Your task to perform on an android device: open device folders in google photos Image 0: 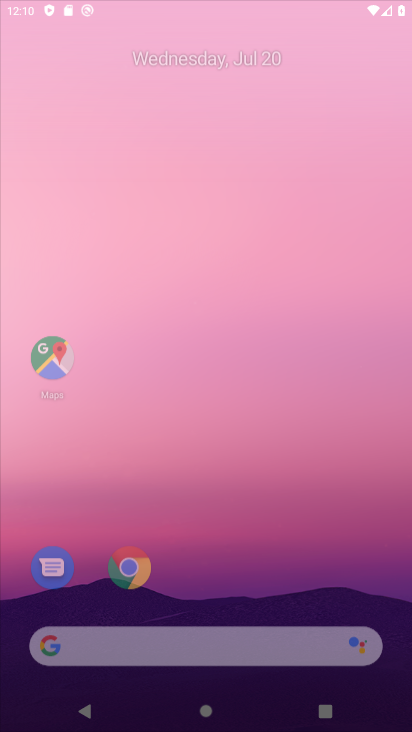
Step 0: press home button
Your task to perform on an android device: open device folders in google photos Image 1: 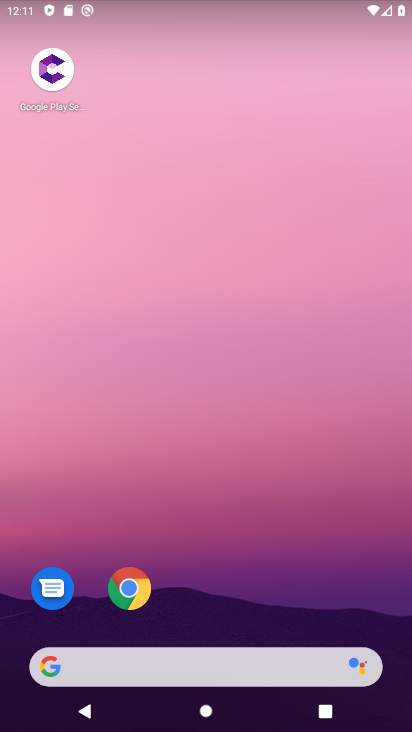
Step 1: drag from (325, 582) to (310, 19)
Your task to perform on an android device: open device folders in google photos Image 2: 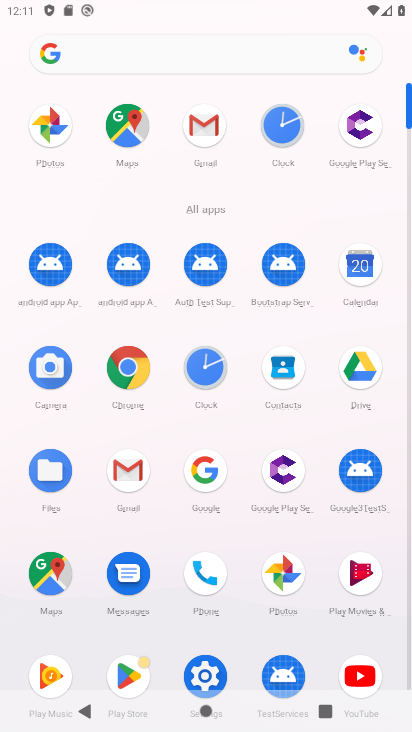
Step 2: click (287, 577)
Your task to perform on an android device: open device folders in google photos Image 3: 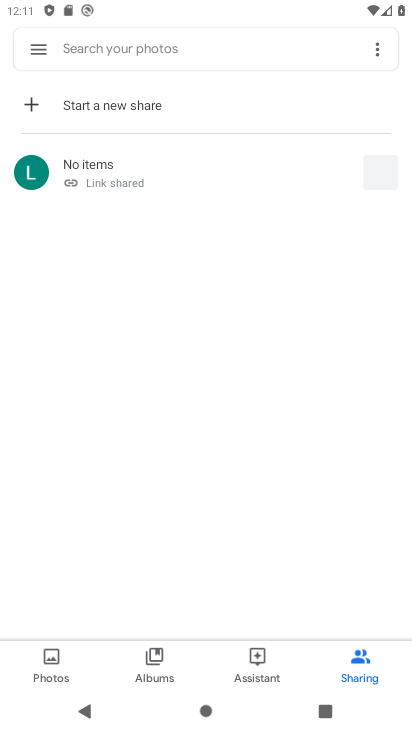
Step 3: click (29, 45)
Your task to perform on an android device: open device folders in google photos Image 4: 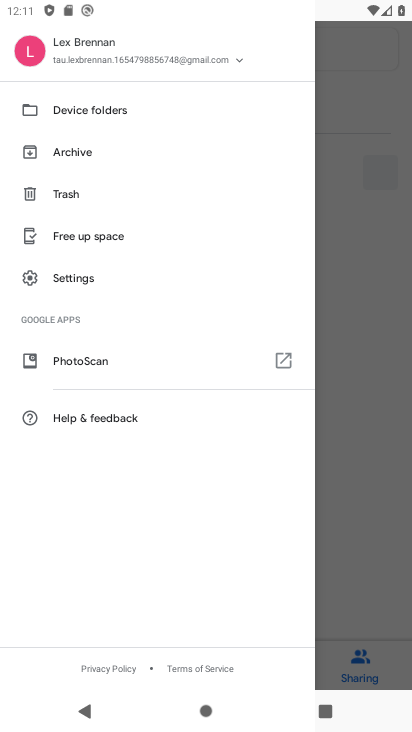
Step 4: click (58, 117)
Your task to perform on an android device: open device folders in google photos Image 5: 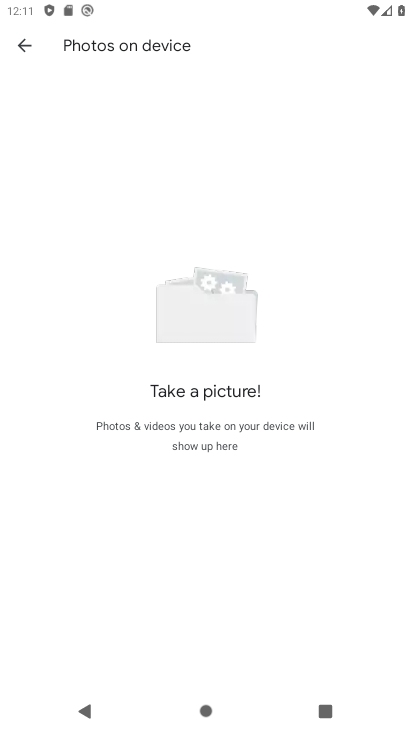
Step 5: task complete